Your task to perform on an android device: add a label to a message in the gmail app Image 0: 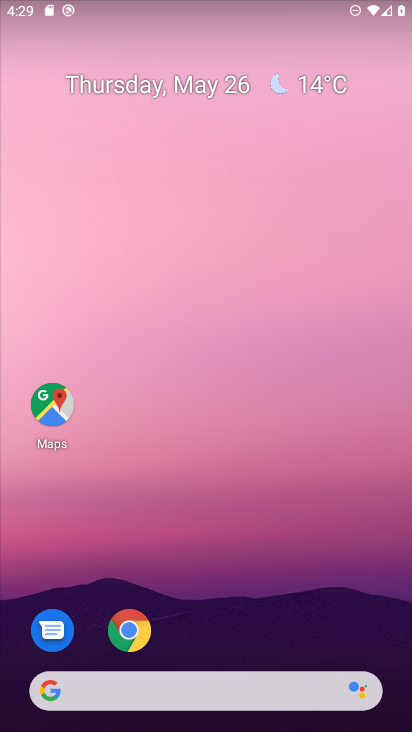
Step 0: drag from (236, 606) to (221, 73)
Your task to perform on an android device: add a label to a message in the gmail app Image 1: 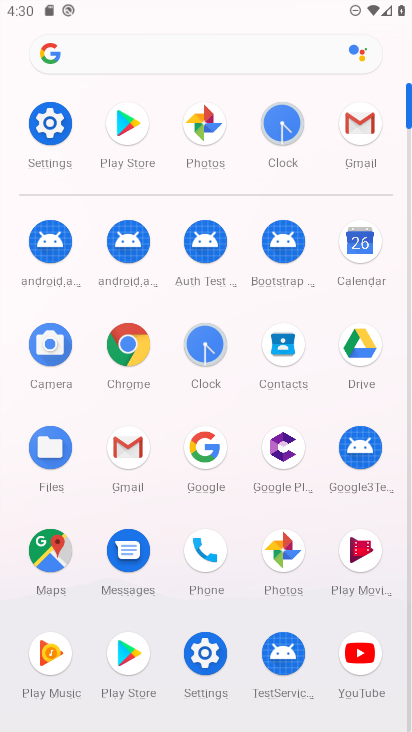
Step 1: click (360, 125)
Your task to perform on an android device: add a label to a message in the gmail app Image 2: 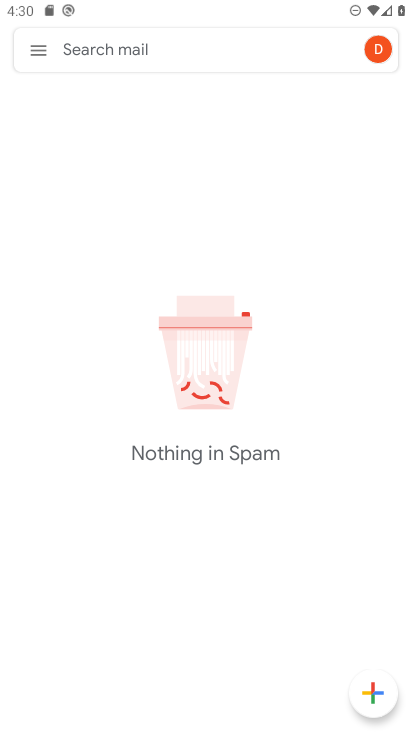
Step 2: click (46, 50)
Your task to perform on an android device: add a label to a message in the gmail app Image 3: 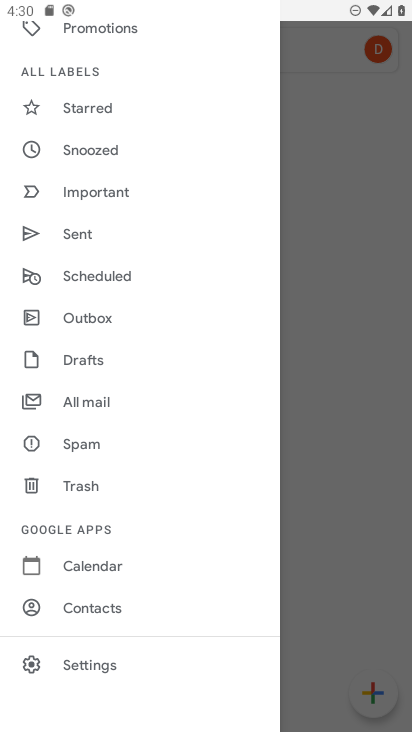
Step 3: drag from (127, 307) to (148, 364)
Your task to perform on an android device: add a label to a message in the gmail app Image 4: 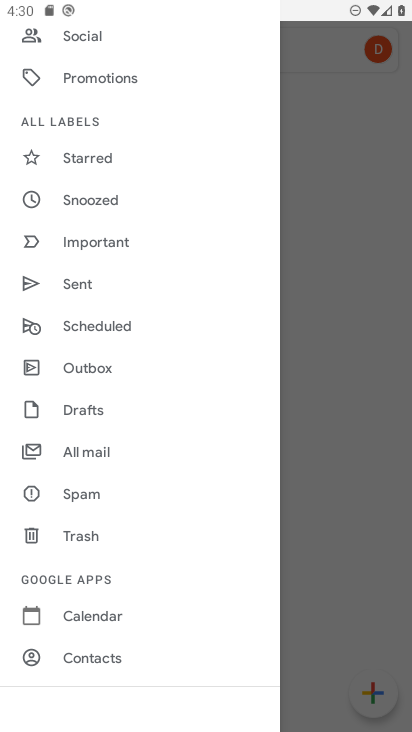
Step 4: drag from (118, 226) to (139, 366)
Your task to perform on an android device: add a label to a message in the gmail app Image 5: 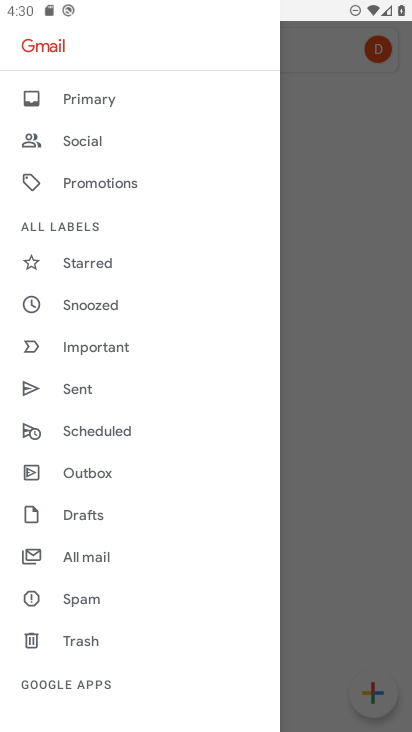
Step 5: click (102, 262)
Your task to perform on an android device: add a label to a message in the gmail app Image 6: 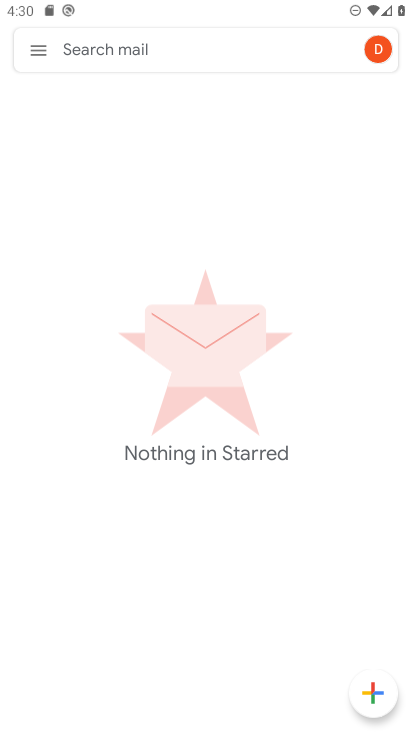
Step 6: click (45, 48)
Your task to perform on an android device: add a label to a message in the gmail app Image 7: 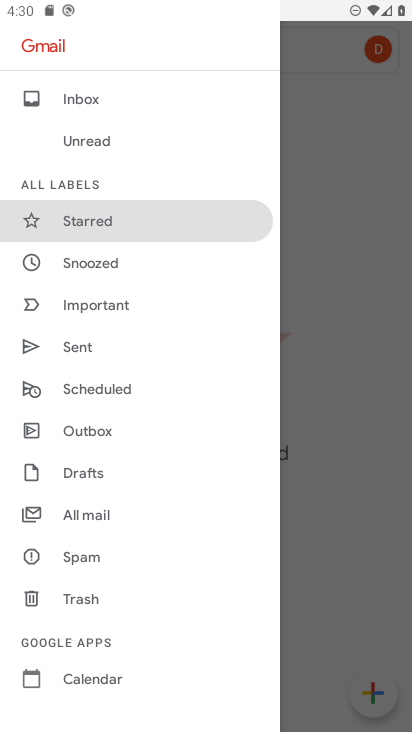
Step 7: click (111, 260)
Your task to perform on an android device: add a label to a message in the gmail app Image 8: 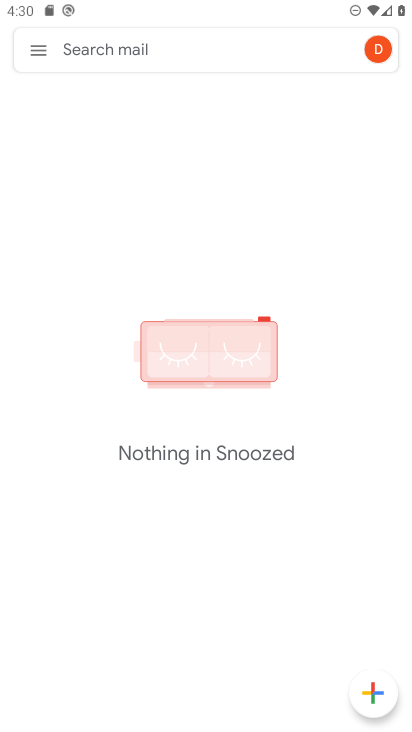
Step 8: click (34, 54)
Your task to perform on an android device: add a label to a message in the gmail app Image 9: 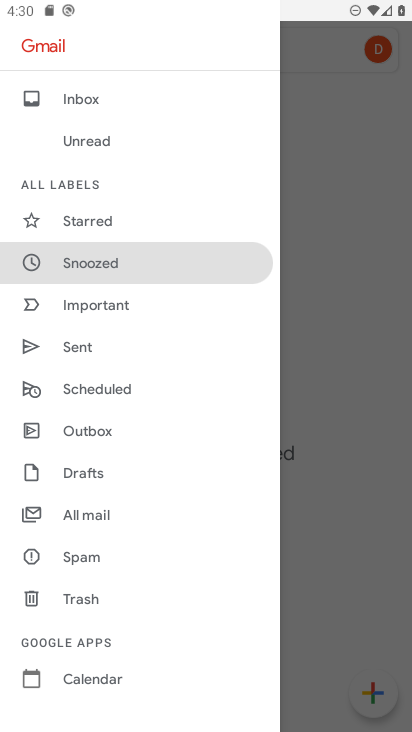
Step 9: click (85, 510)
Your task to perform on an android device: add a label to a message in the gmail app Image 10: 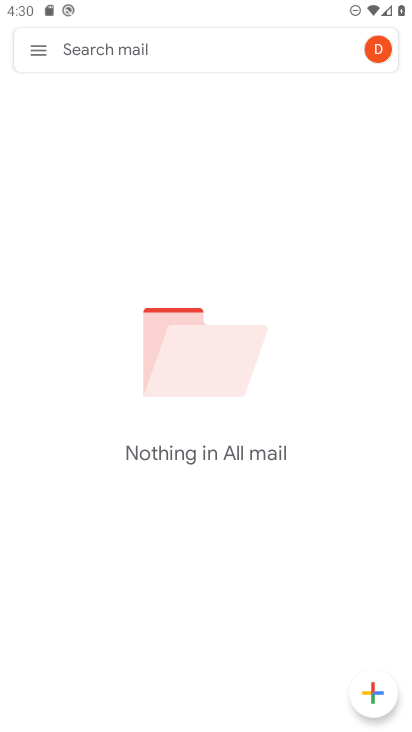
Step 10: click (38, 48)
Your task to perform on an android device: add a label to a message in the gmail app Image 11: 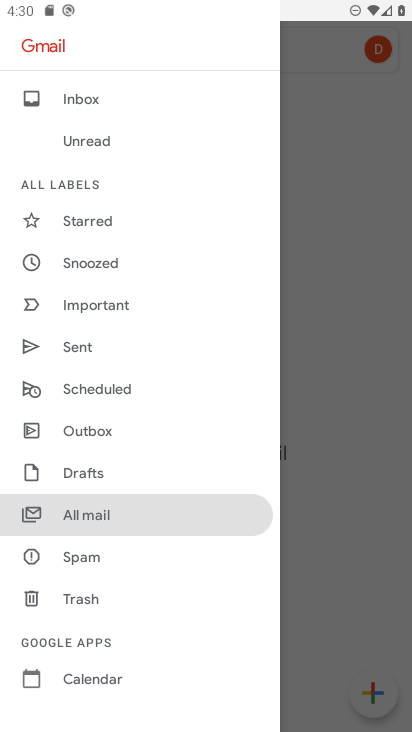
Step 11: task complete